Your task to perform on an android device: turn on the 24-hour format for clock Image 0: 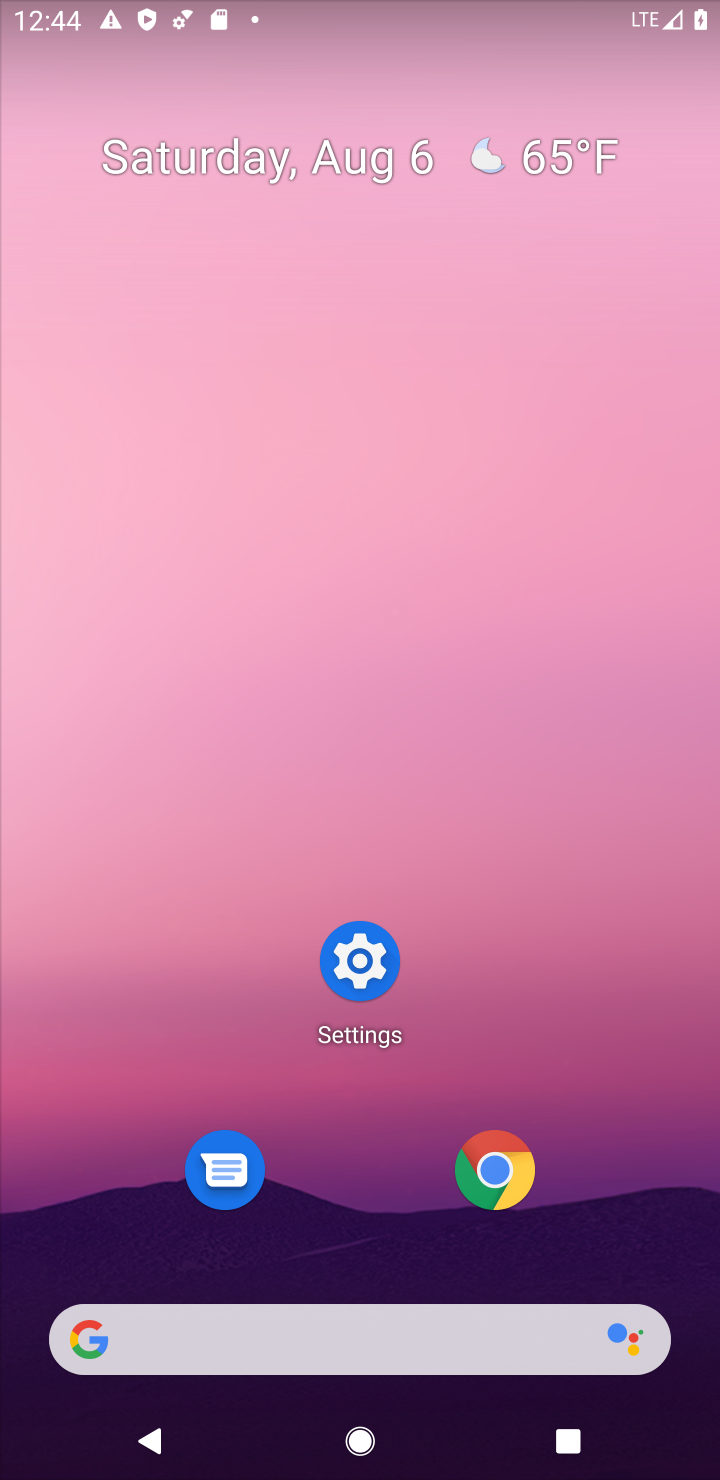
Step 0: drag from (550, 990) to (552, 535)
Your task to perform on an android device: turn on the 24-hour format for clock Image 1: 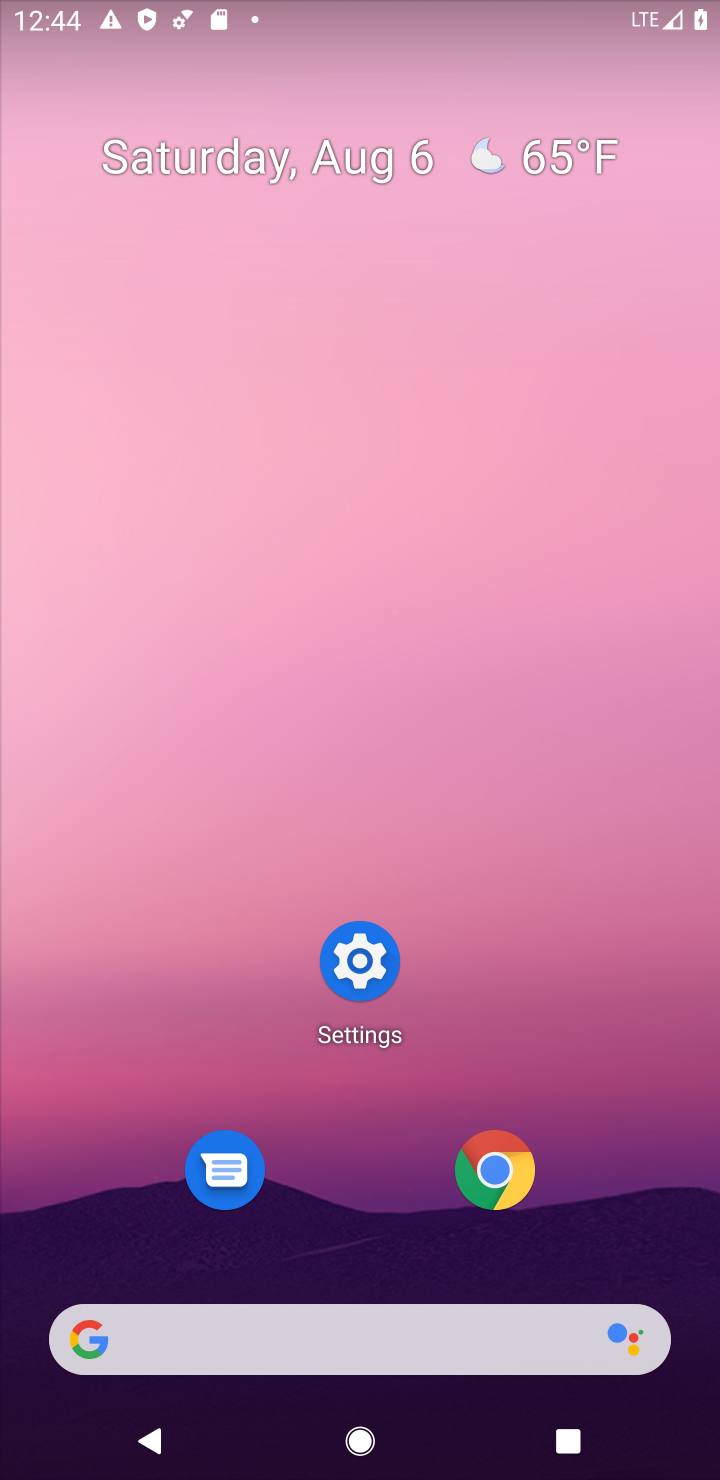
Step 1: drag from (574, 1076) to (524, 114)
Your task to perform on an android device: turn on the 24-hour format for clock Image 2: 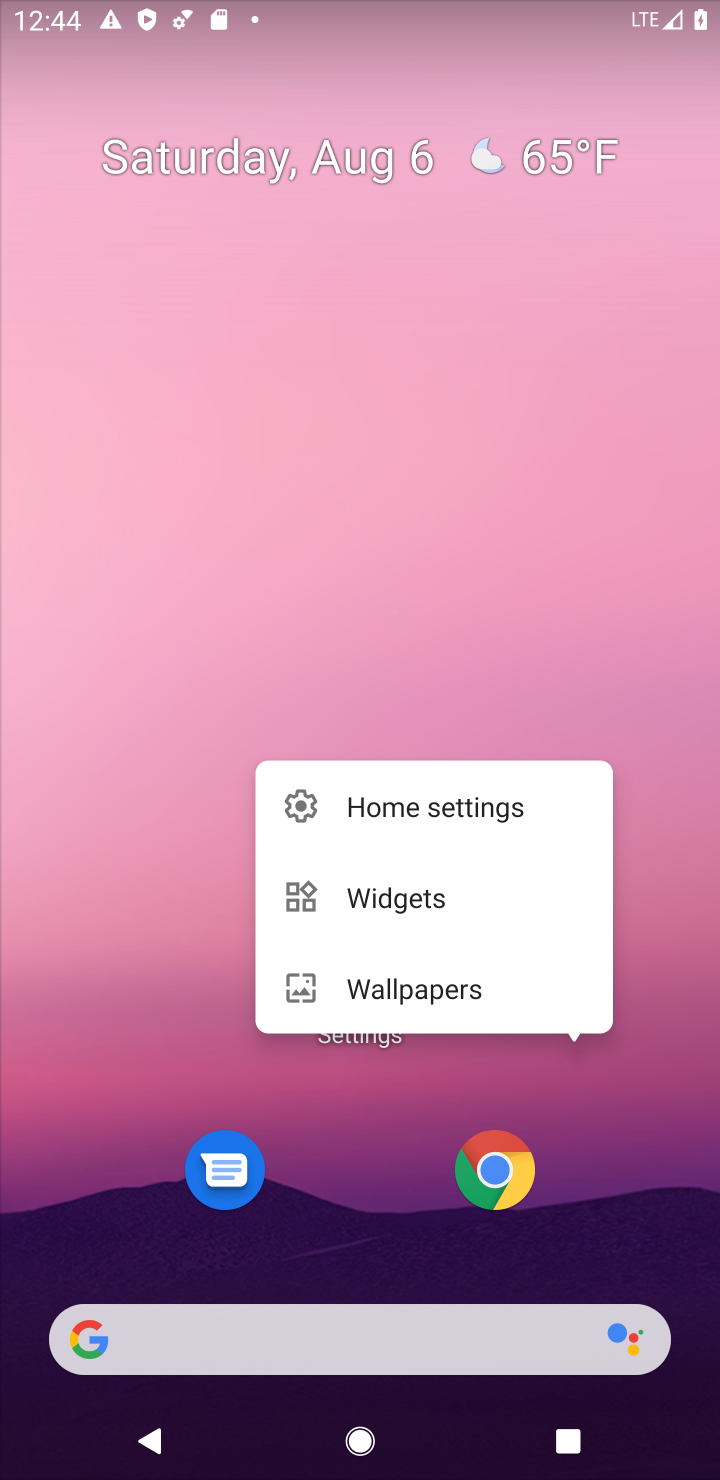
Step 2: click (103, 1207)
Your task to perform on an android device: turn on the 24-hour format for clock Image 3: 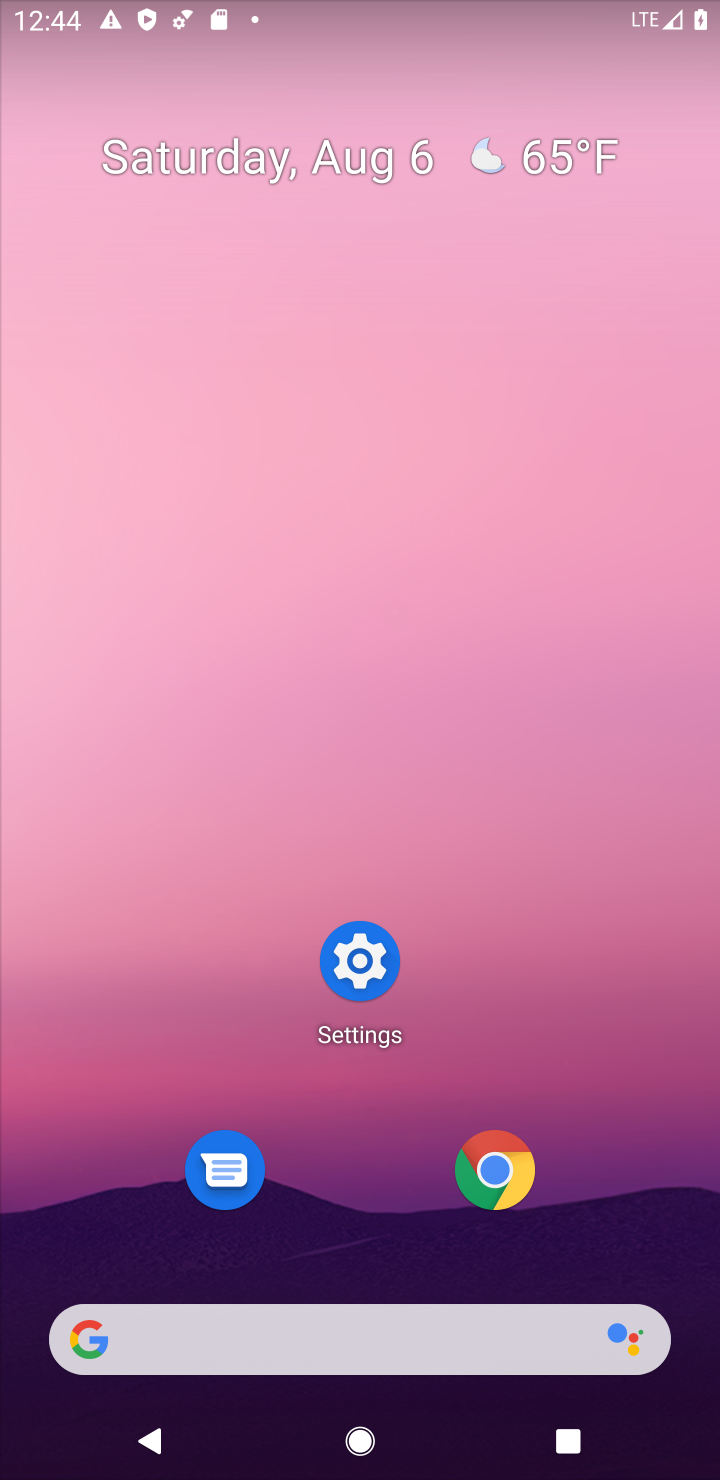
Step 3: drag from (103, 1207) to (232, 32)
Your task to perform on an android device: turn on the 24-hour format for clock Image 4: 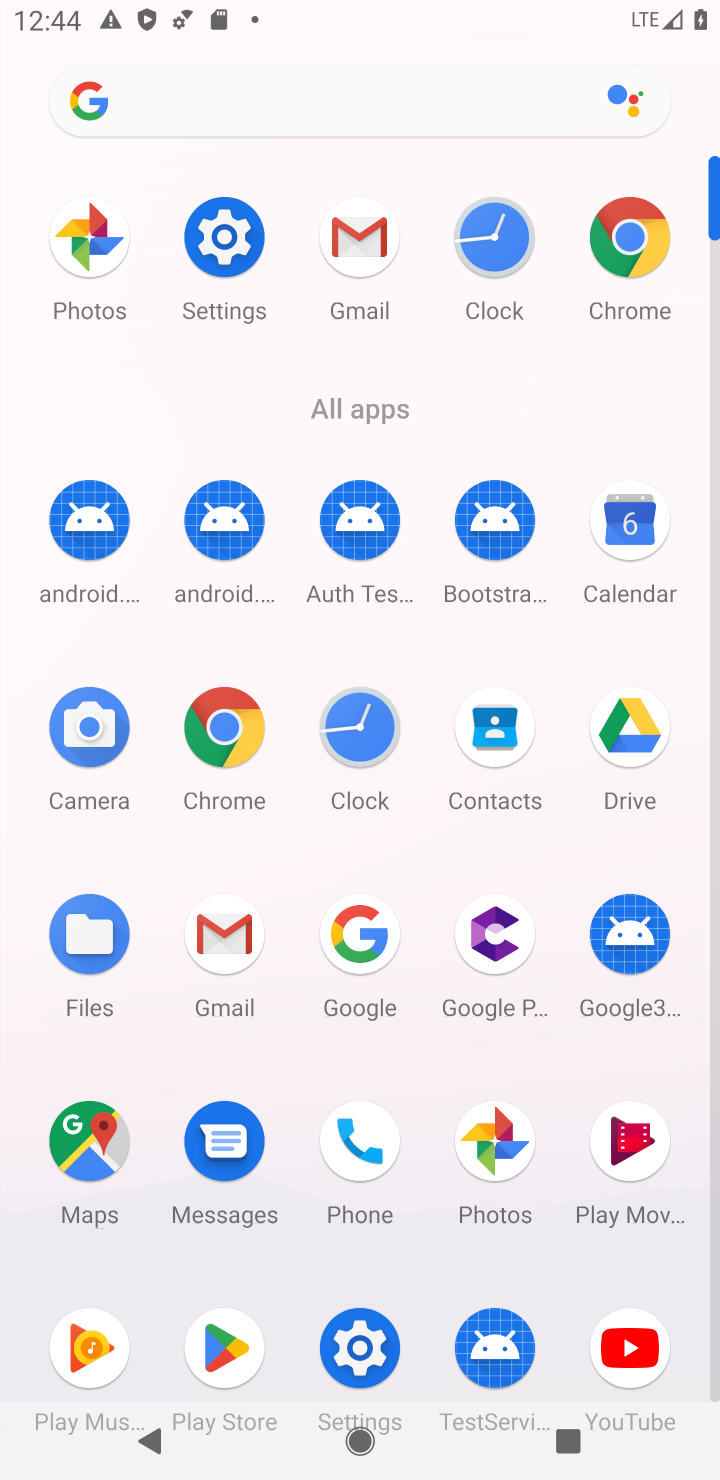
Step 4: click (496, 302)
Your task to perform on an android device: turn on the 24-hour format for clock Image 5: 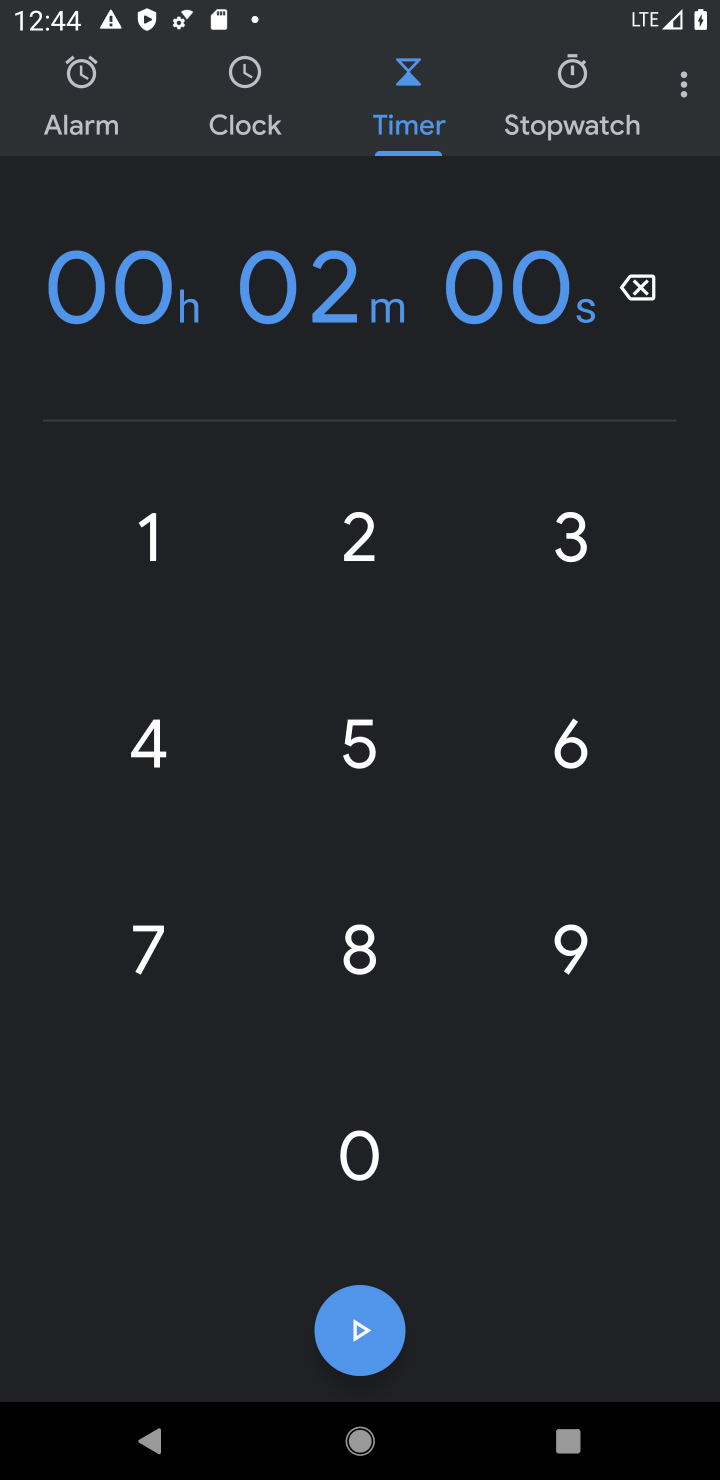
Step 5: click (686, 82)
Your task to perform on an android device: turn on the 24-hour format for clock Image 6: 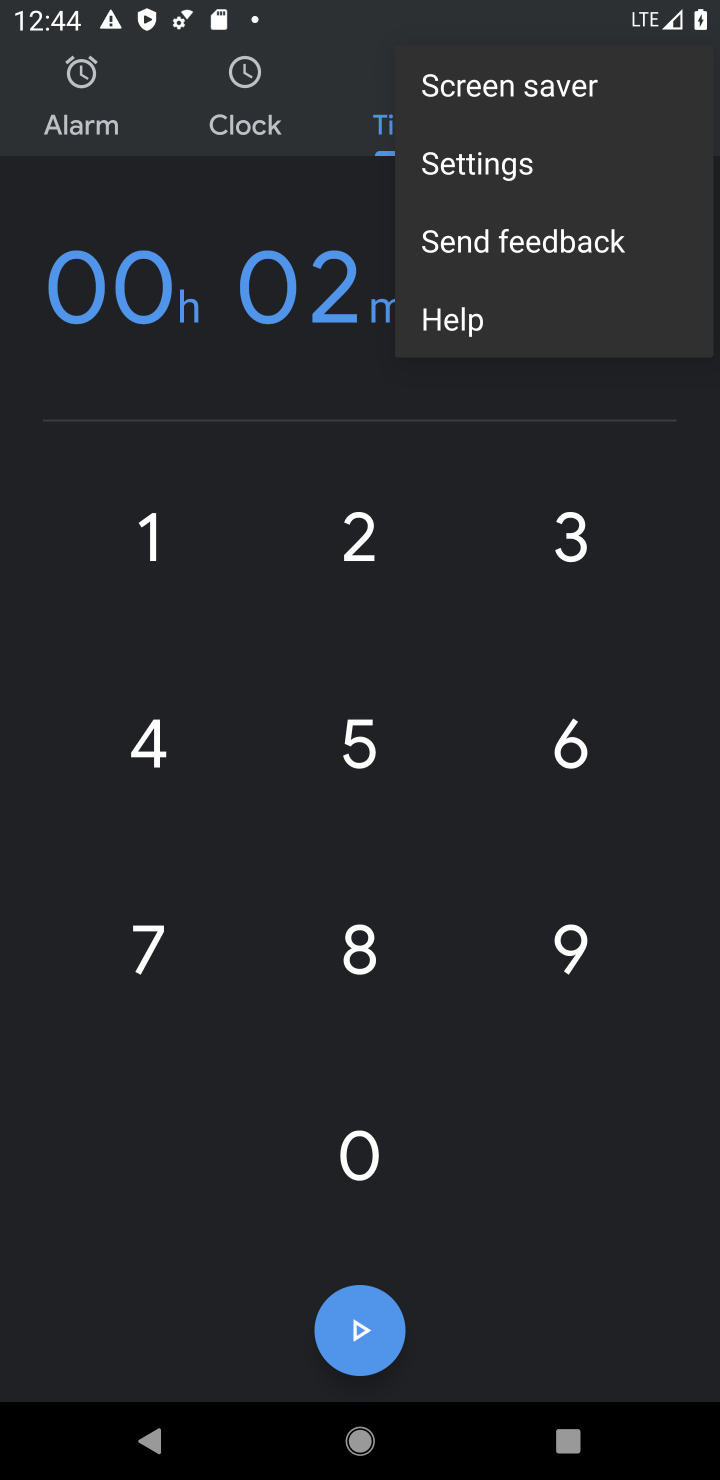
Step 6: click (539, 187)
Your task to perform on an android device: turn on the 24-hour format for clock Image 7: 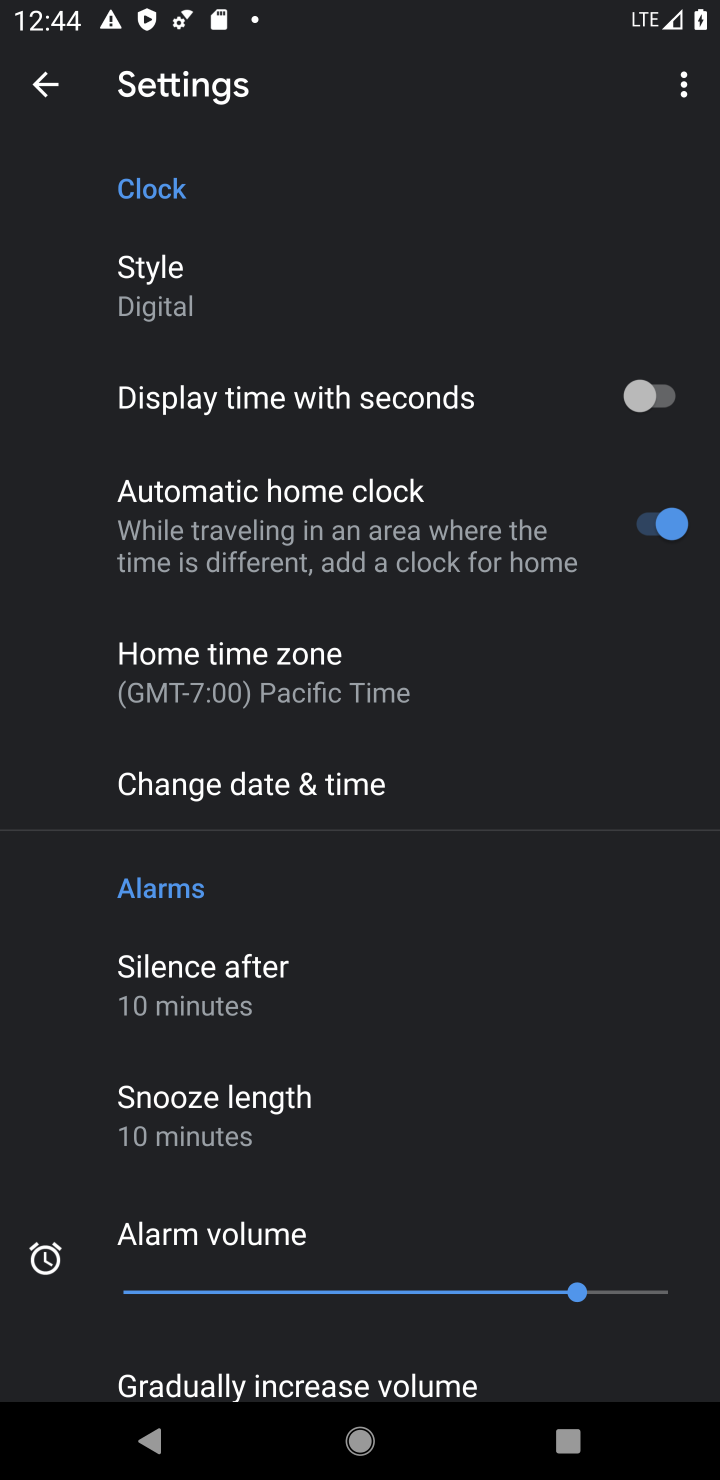
Step 7: drag from (626, 841) to (569, 168)
Your task to perform on an android device: turn on the 24-hour format for clock Image 8: 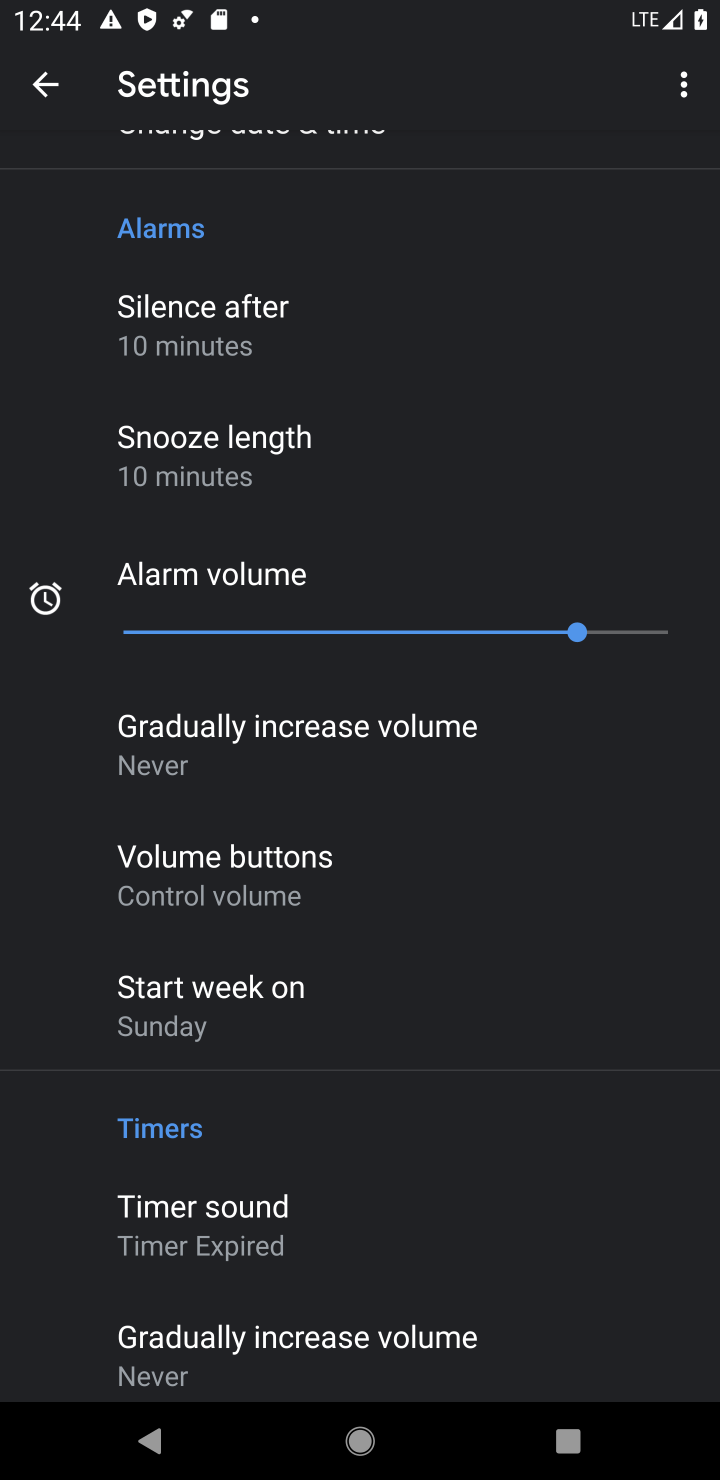
Step 8: drag from (618, 448) to (601, 1447)
Your task to perform on an android device: turn on the 24-hour format for clock Image 9: 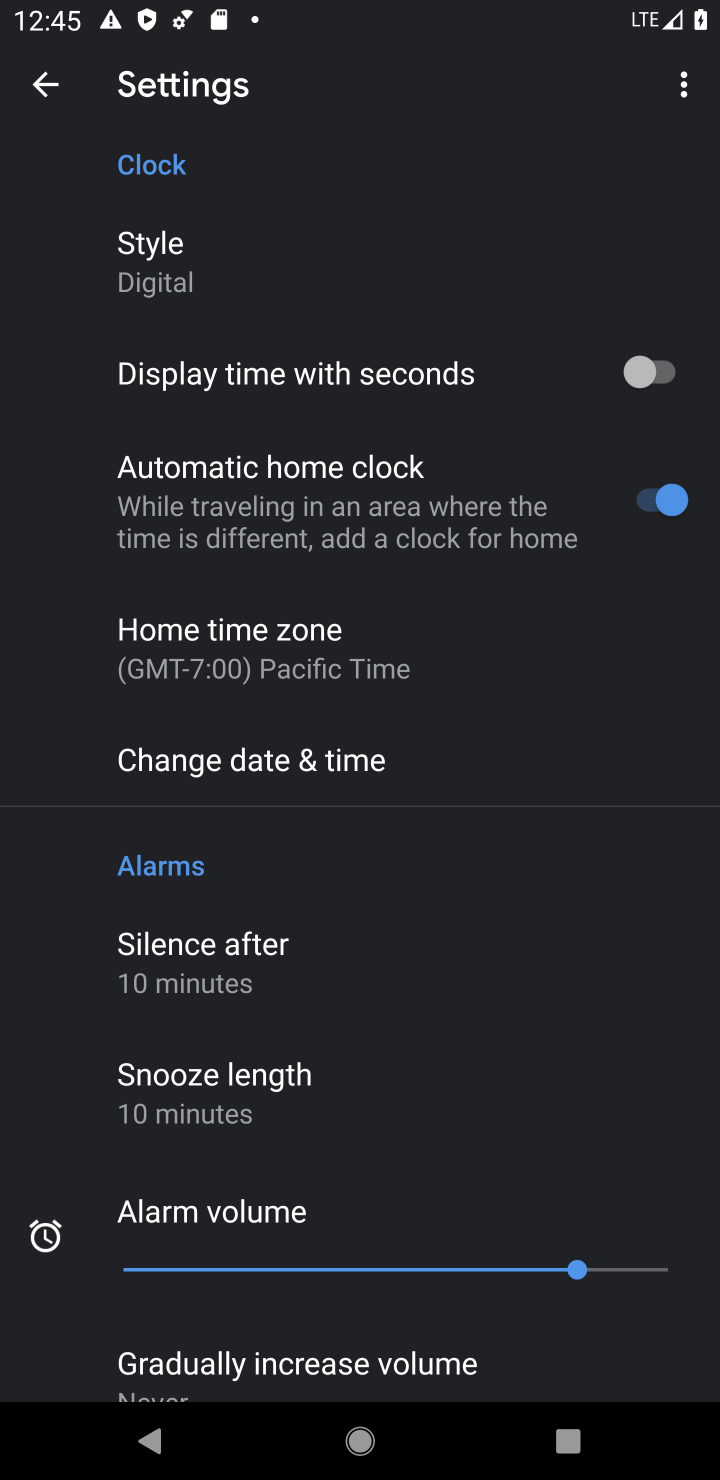
Step 9: click (320, 768)
Your task to perform on an android device: turn on the 24-hour format for clock Image 10: 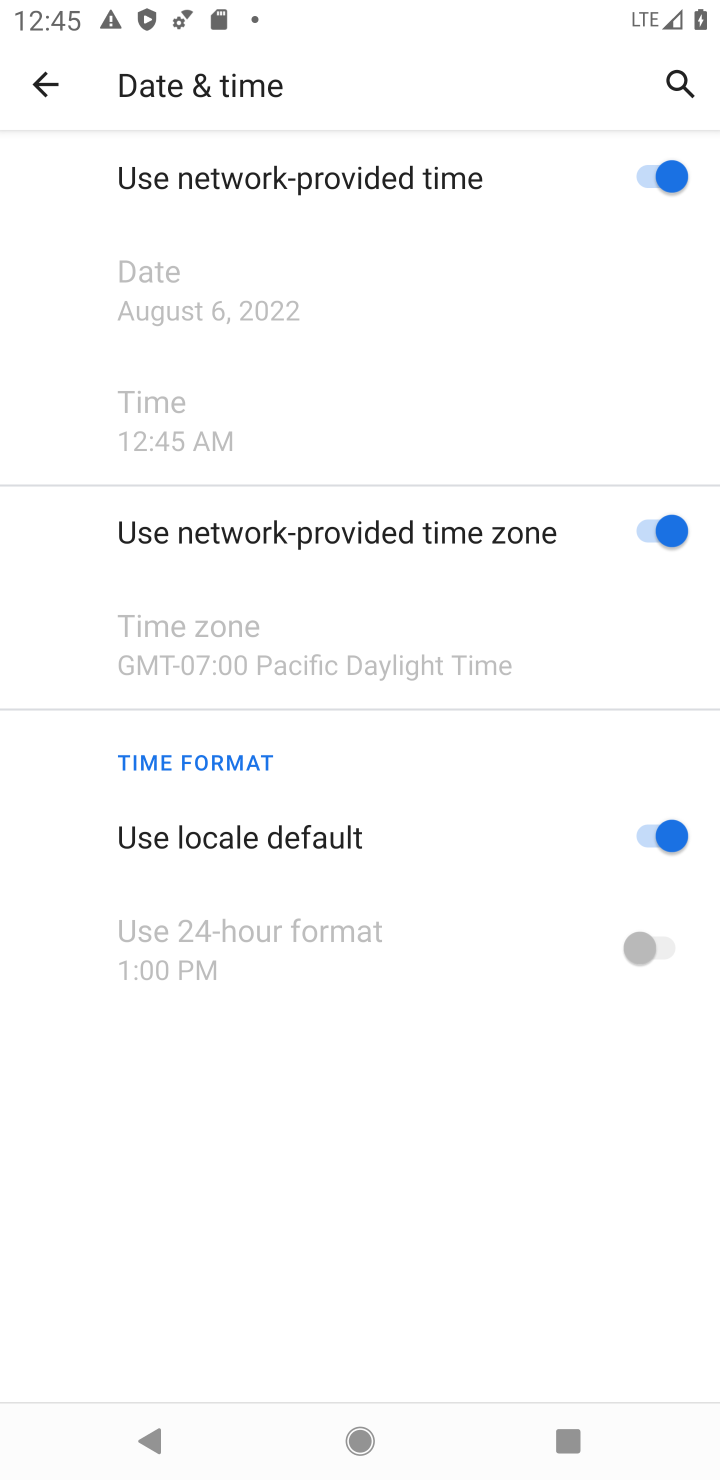
Step 10: click (50, 87)
Your task to perform on an android device: turn on the 24-hour format for clock Image 11: 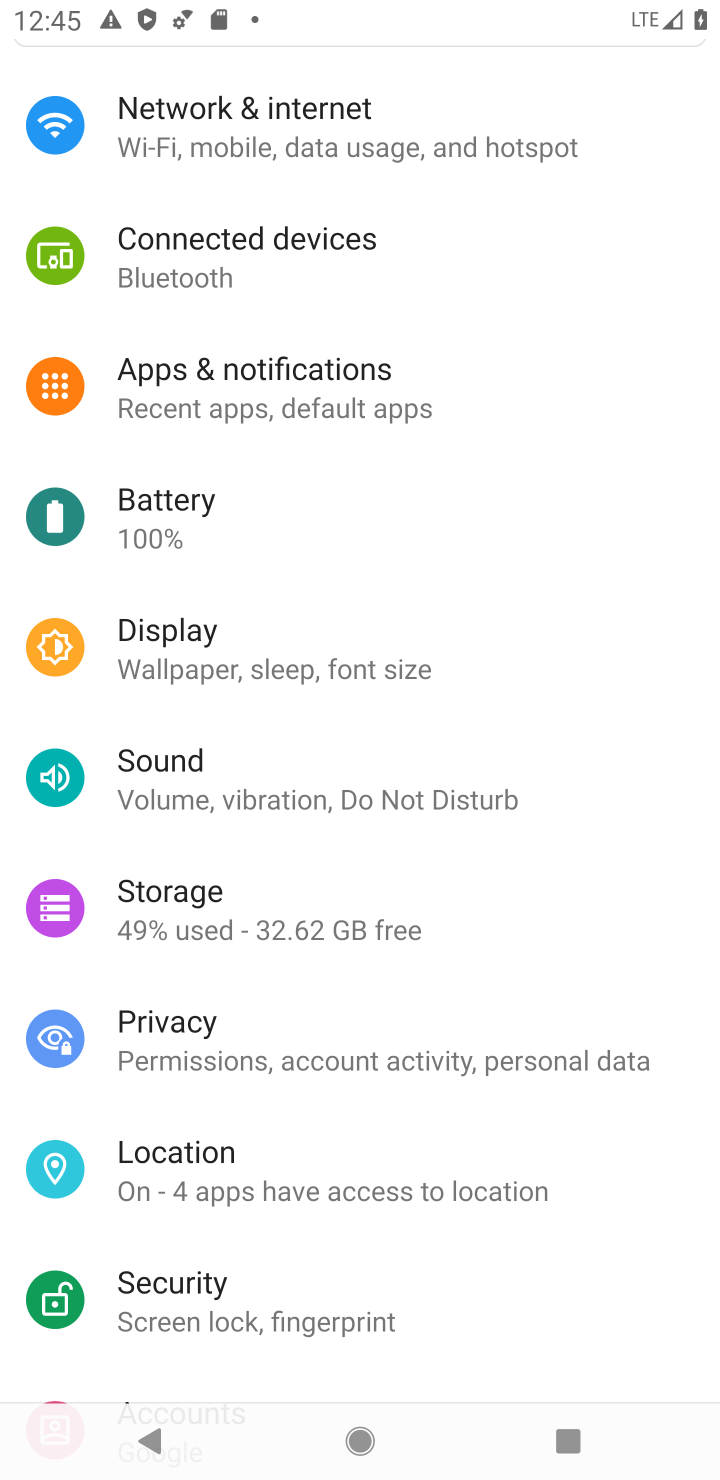
Step 11: click (331, 1461)
Your task to perform on an android device: turn on the 24-hour format for clock Image 12: 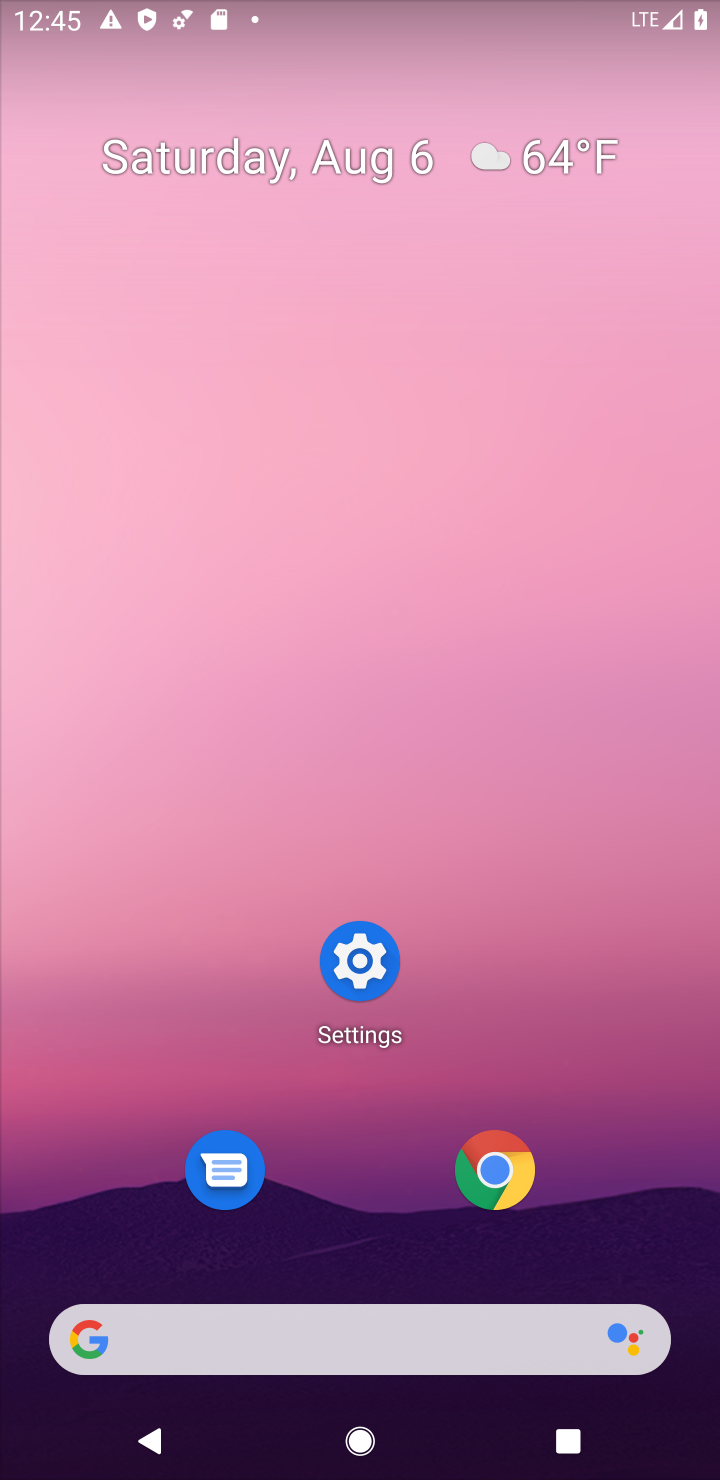
Step 12: drag from (361, 1194) to (510, 40)
Your task to perform on an android device: turn on the 24-hour format for clock Image 13: 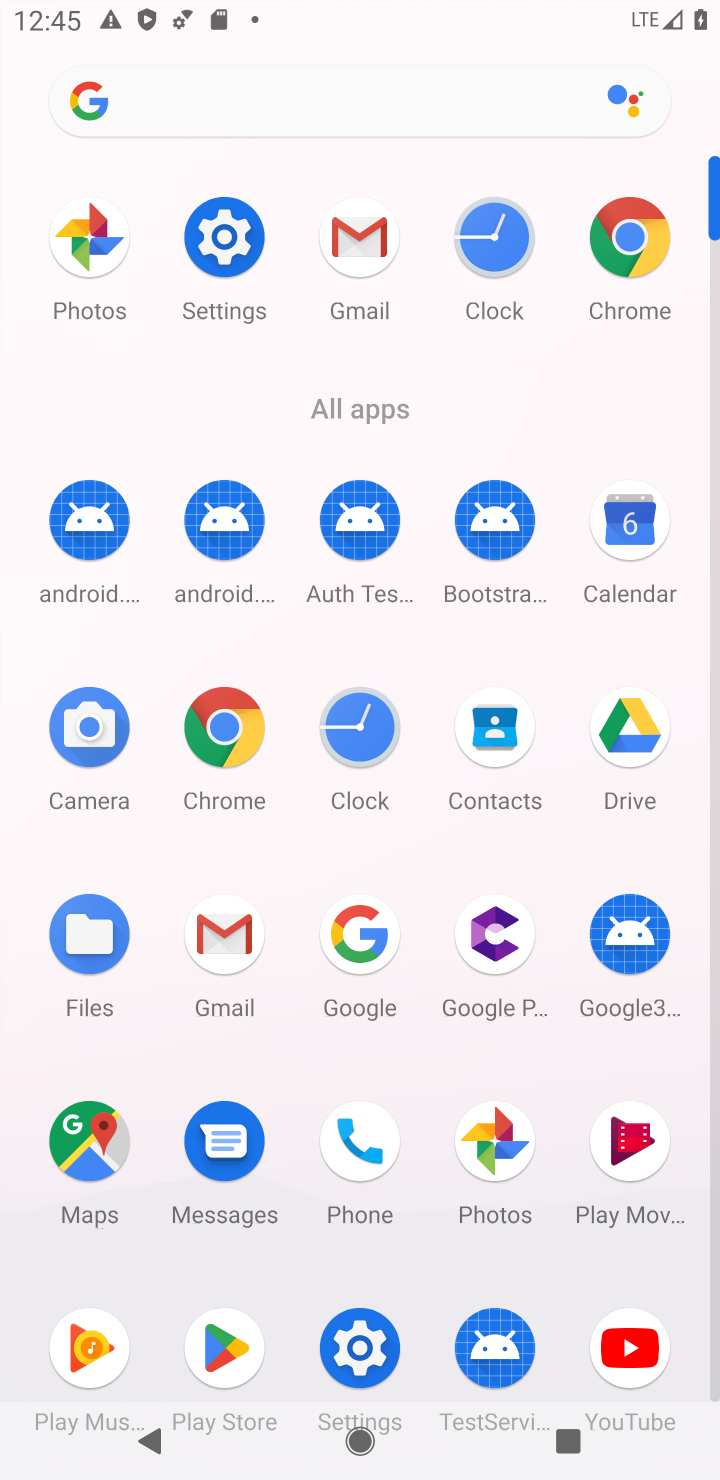
Step 13: click (502, 241)
Your task to perform on an android device: turn on the 24-hour format for clock Image 14: 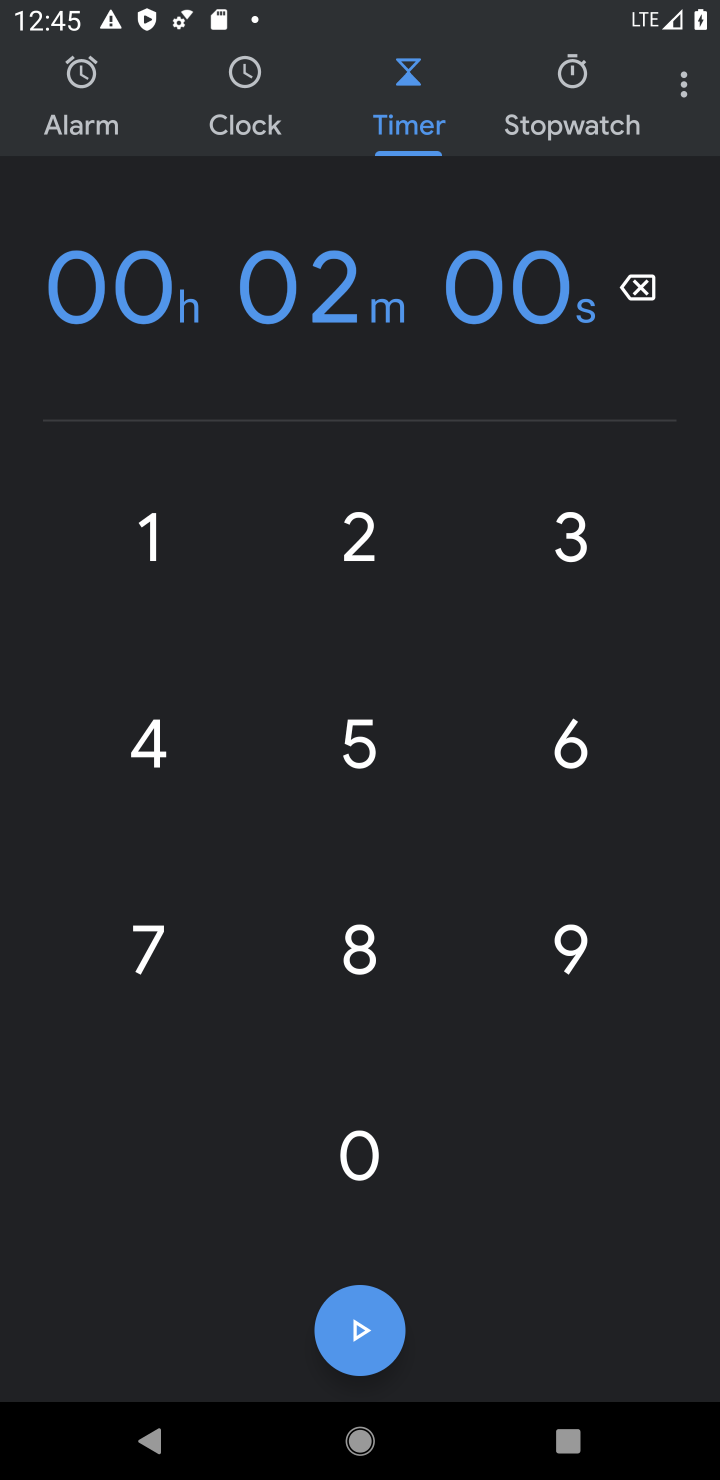
Step 14: click (679, 81)
Your task to perform on an android device: turn on the 24-hour format for clock Image 15: 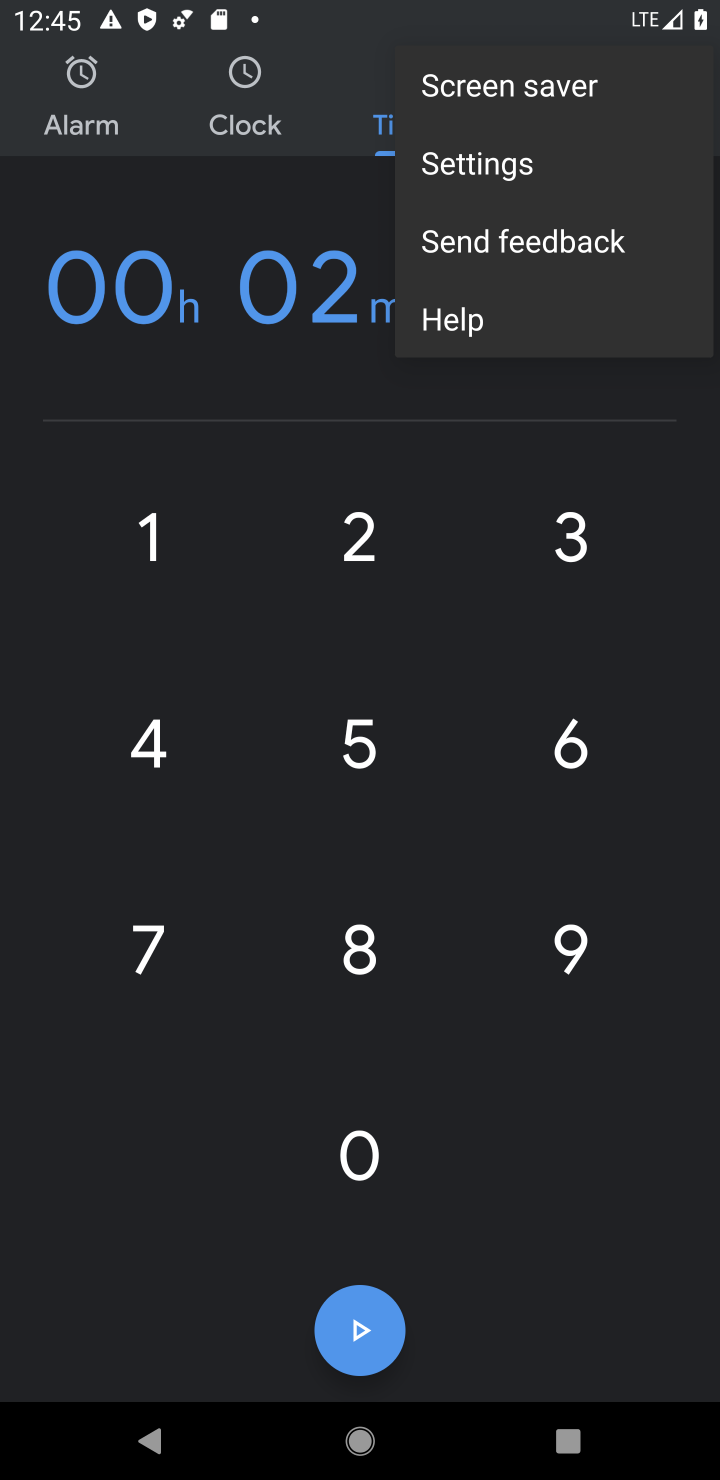
Step 15: click (575, 146)
Your task to perform on an android device: turn on the 24-hour format for clock Image 16: 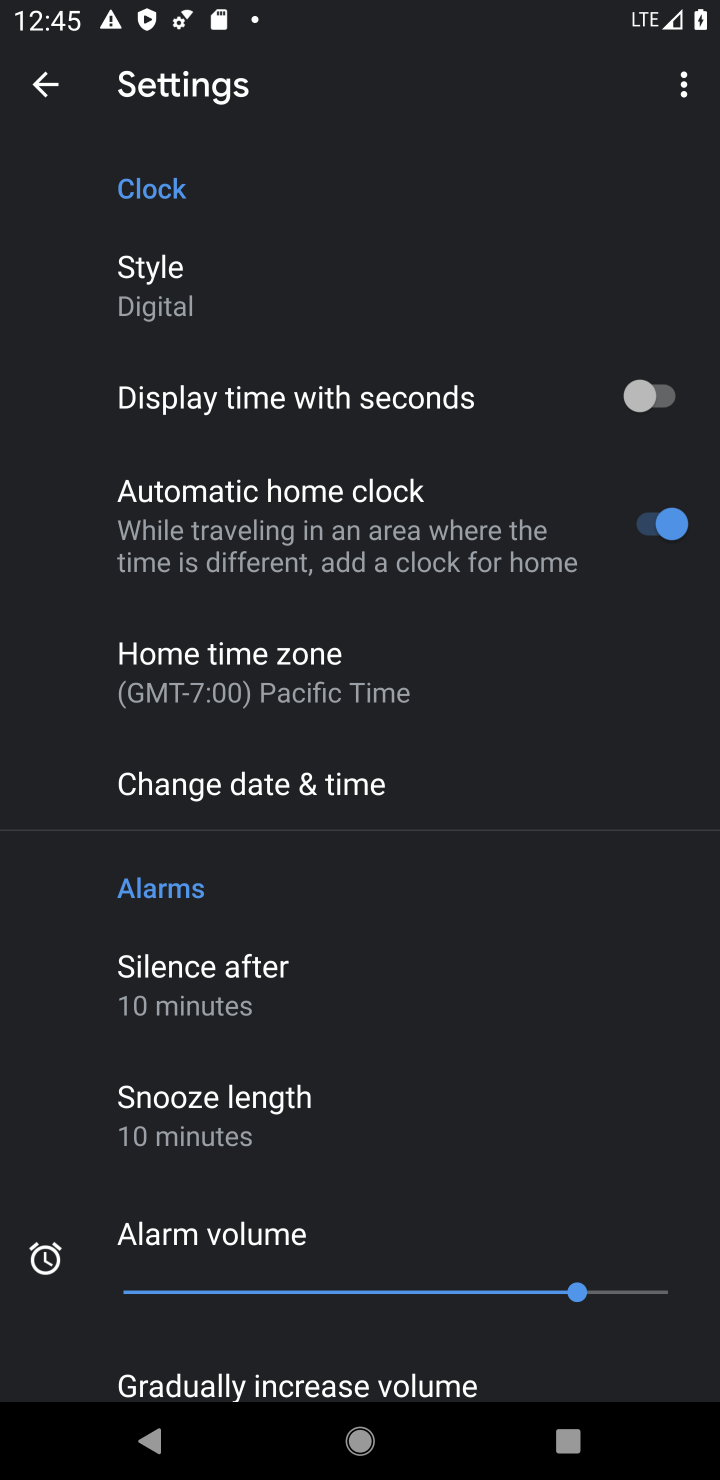
Step 16: click (351, 681)
Your task to perform on an android device: turn on the 24-hour format for clock Image 17: 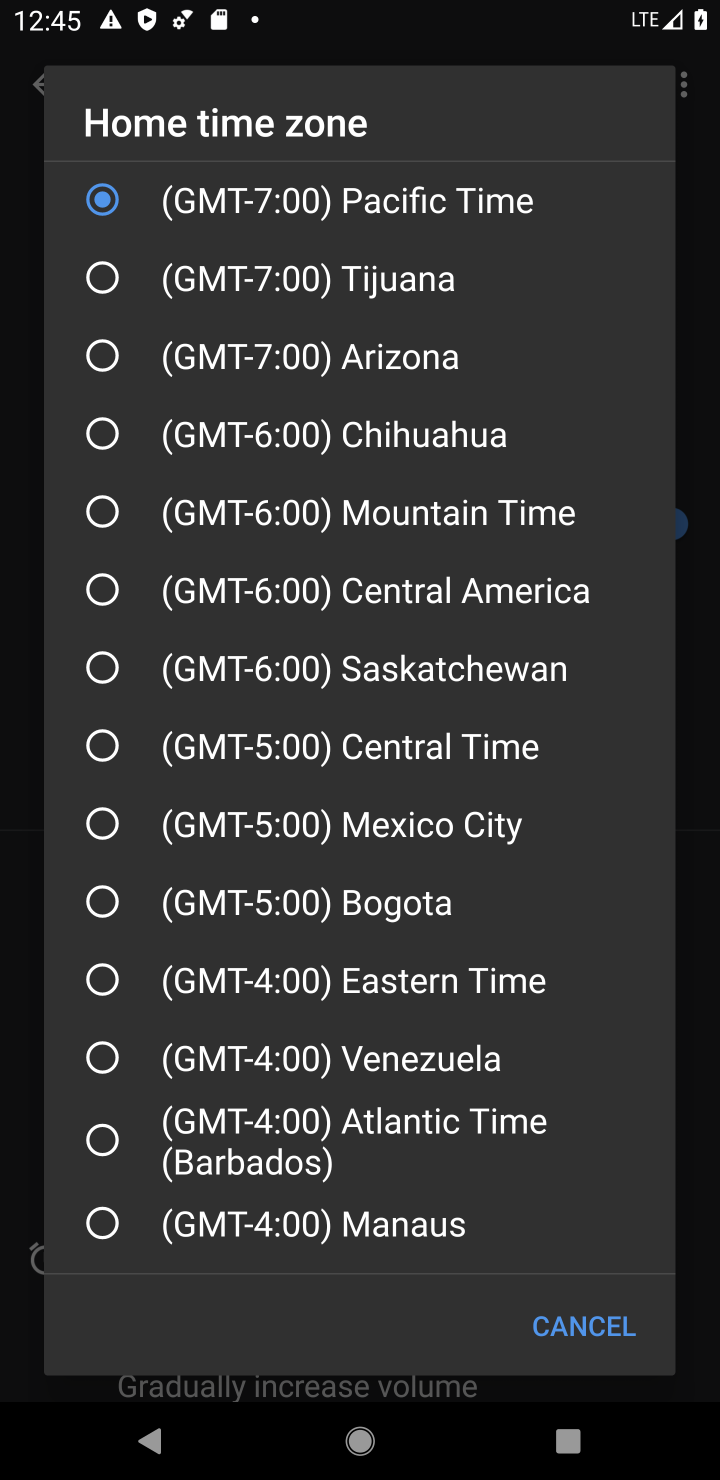
Step 17: click (588, 1327)
Your task to perform on an android device: turn on the 24-hour format for clock Image 18: 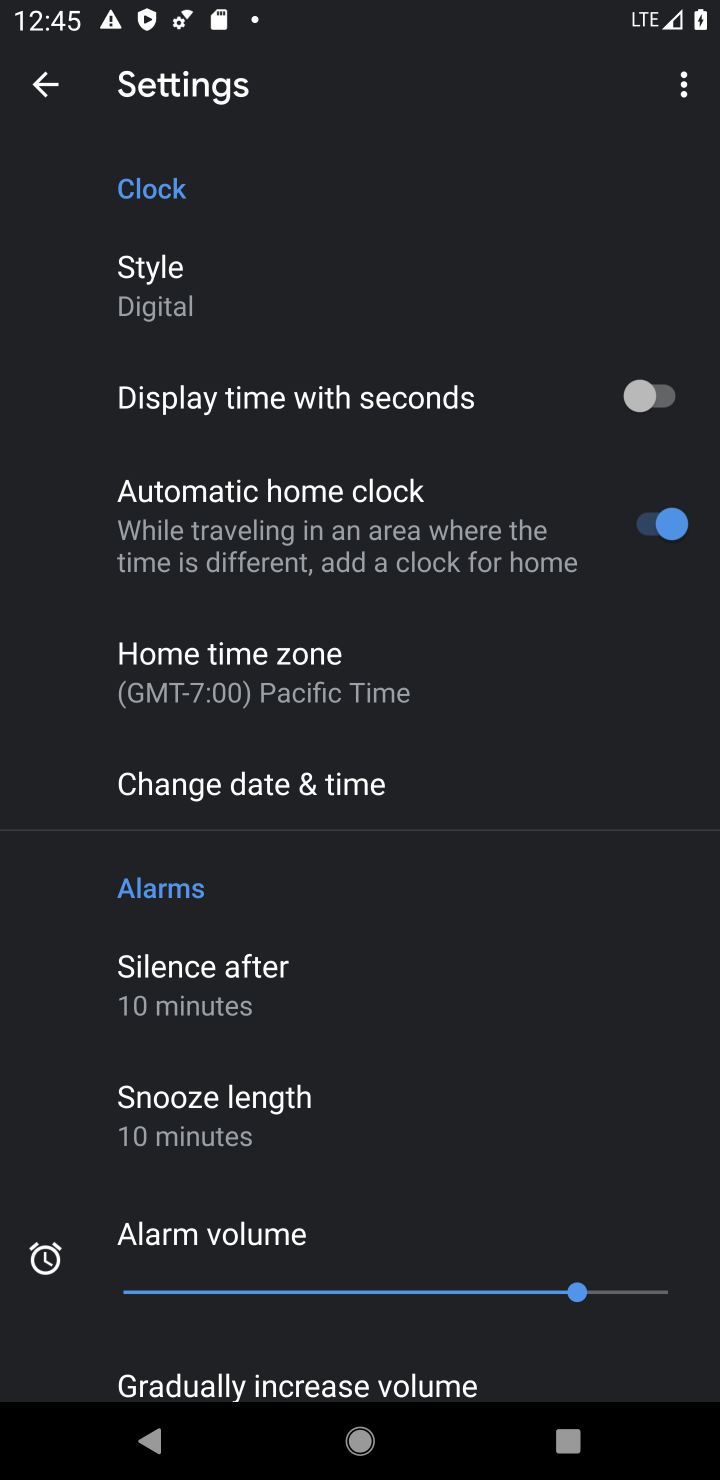
Step 18: drag from (24, 754) to (216, 7)
Your task to perform on an android device: turn on the 24-hour format for clock Image 19: 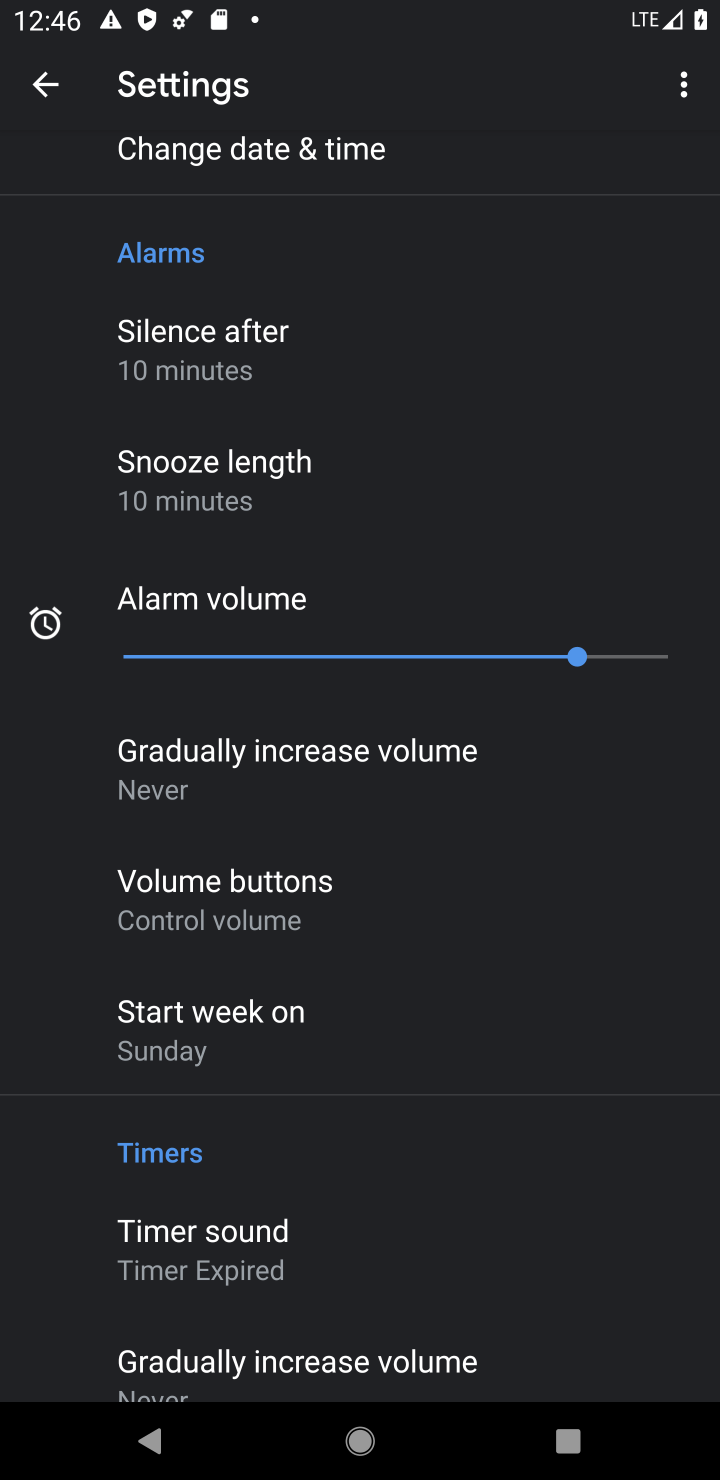
Step 19: drag from (56, 1262) to (310, 32)
Your task to perform on an android device: turn on the 24-hour format for clock Image 20: 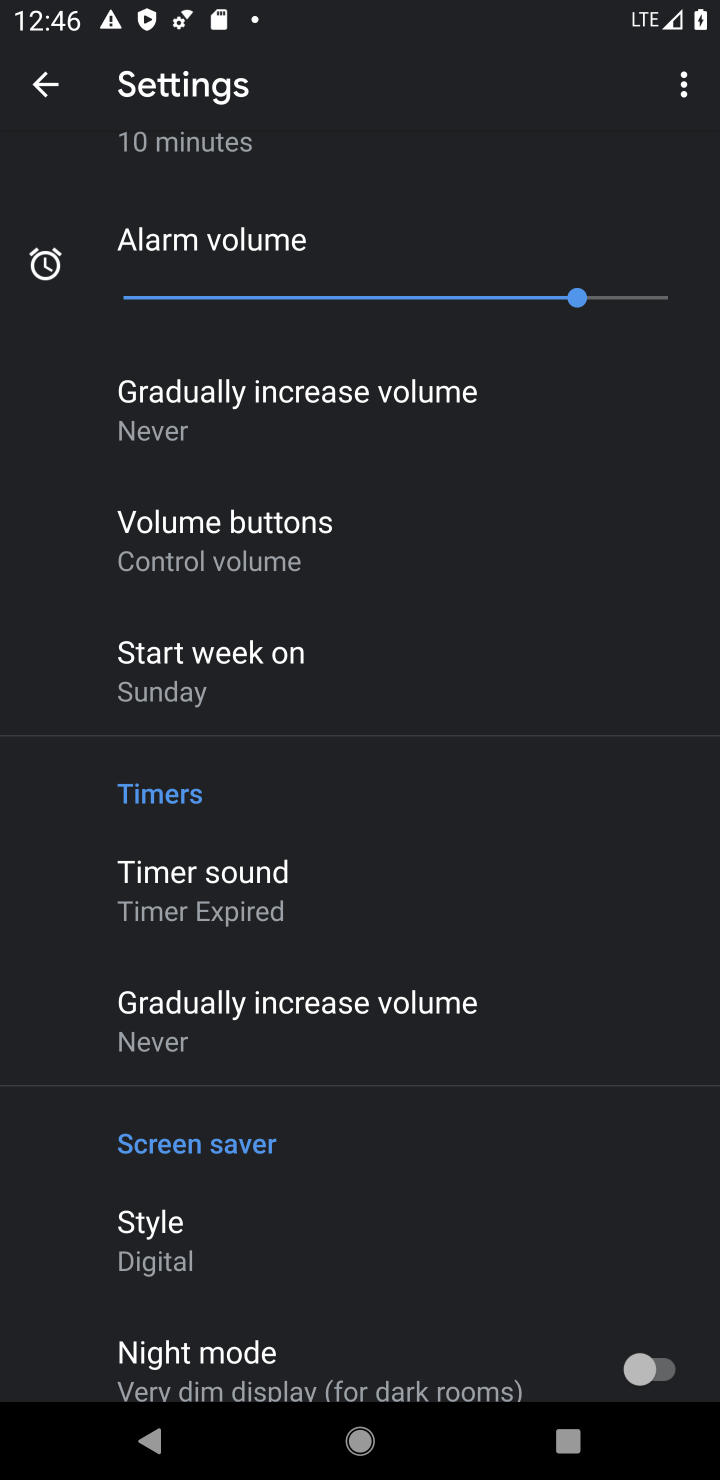
Step 20: click (357, 1442)
Your task to perform on an android device: turn on the 24-hour format for clock Image 21: 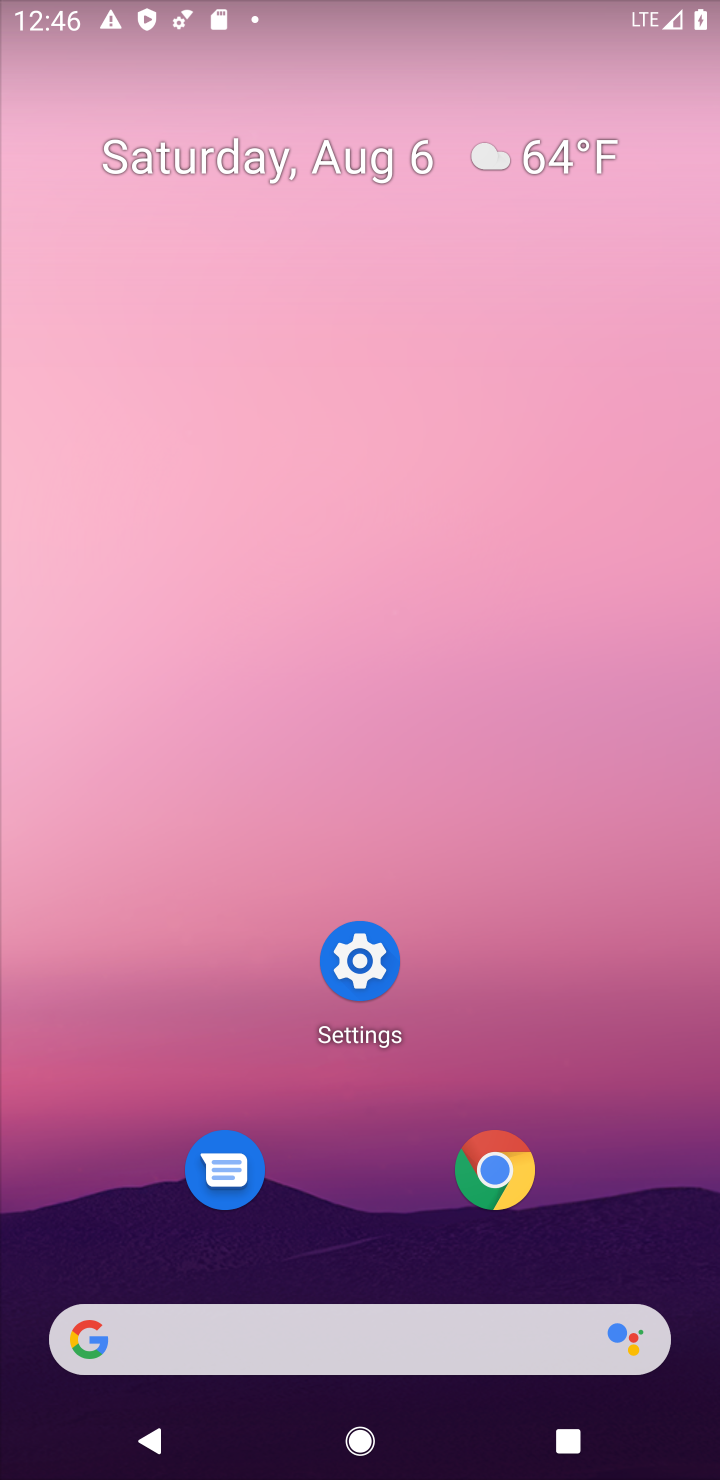
Step 21: click (348, 963)
Your task to perform on an android device: turn on the 24-hour format for clock Image 22: 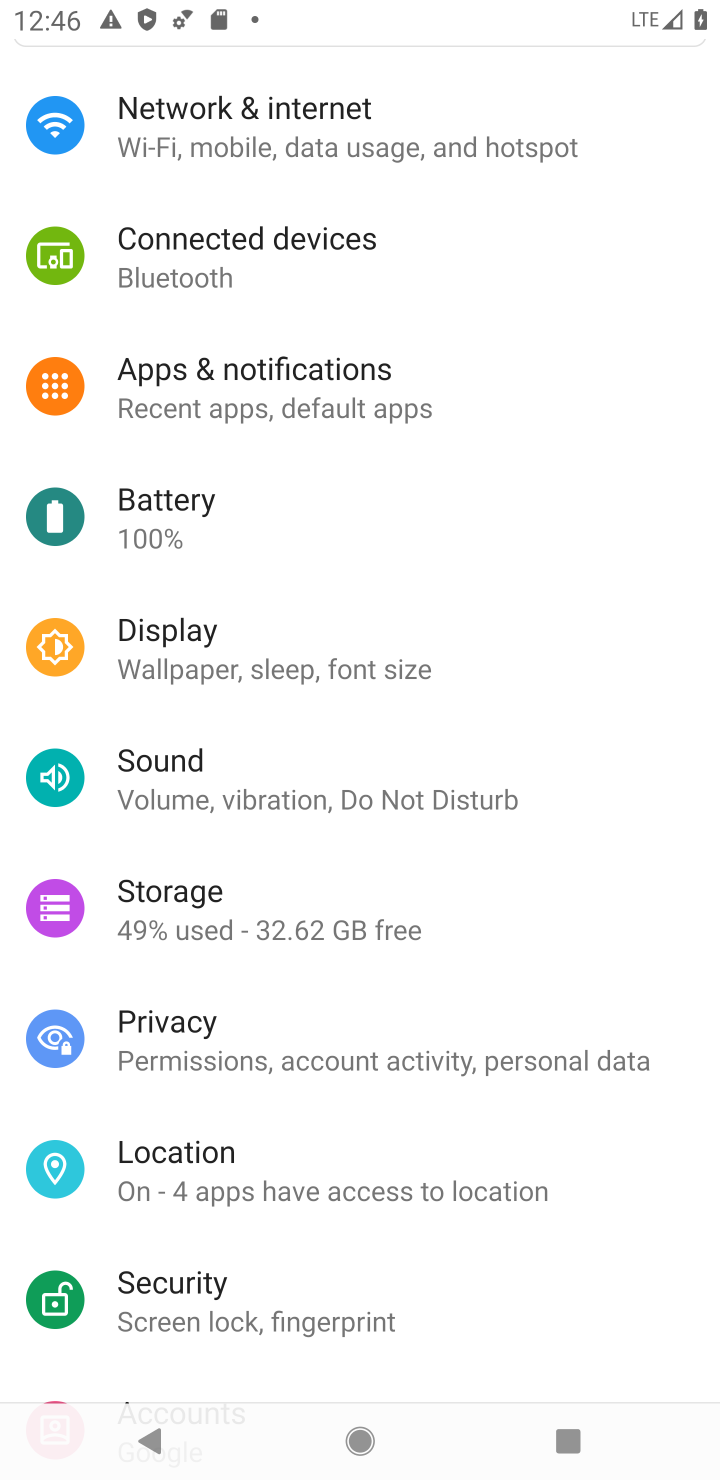
Step 22: drag from (602, 802) to (554, 28)
Your task to perform on an android device: turn on the 24-hour format for clock Image 23: 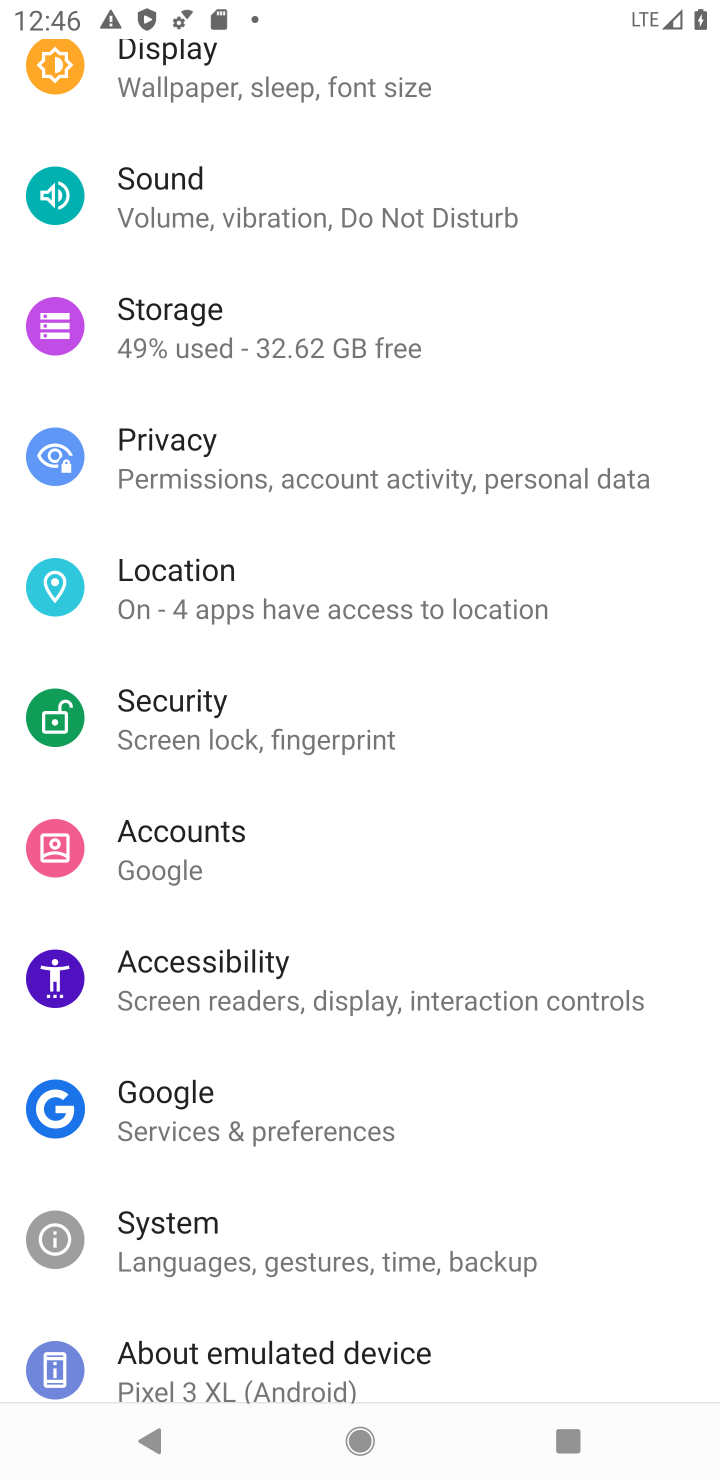
Step 23: click (555, 15)
Your task to perform on an android device: turn on the 24-hour format for clock Image 24: 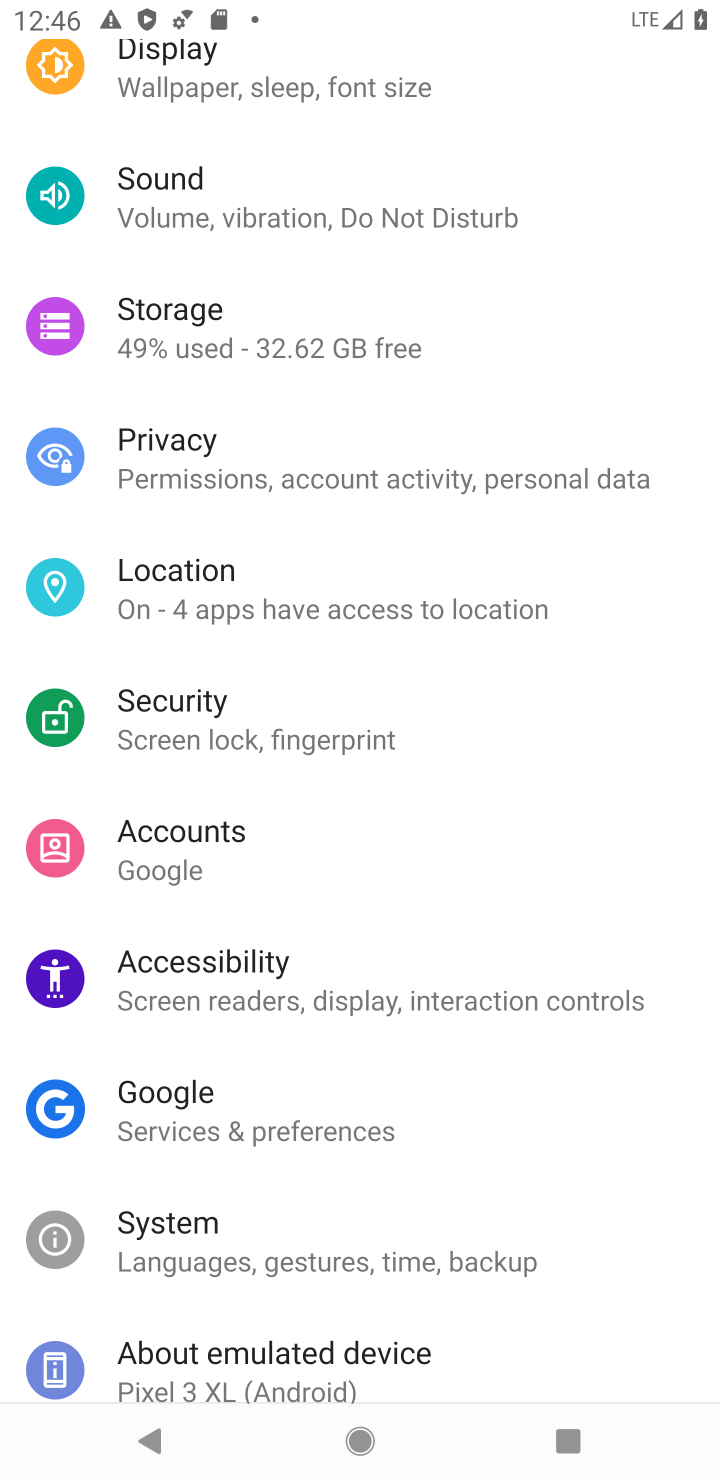
Step 24: click (366, 1272)
Your task to perform on an android device: turn on the 24-hour format for clock Image 25: 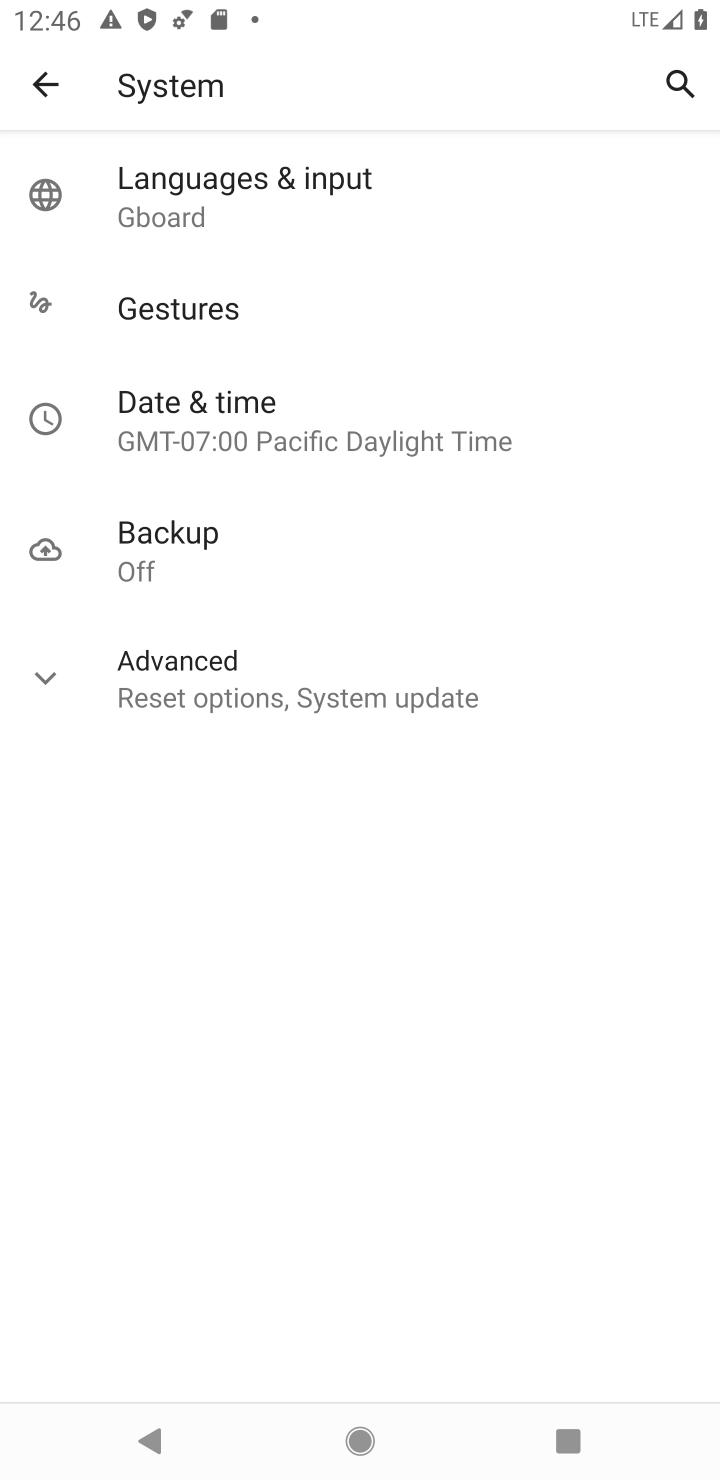
Step 25: click (181, 427)
Your task to perform on an android device: turn on the 24-hour format for clock Image 26: 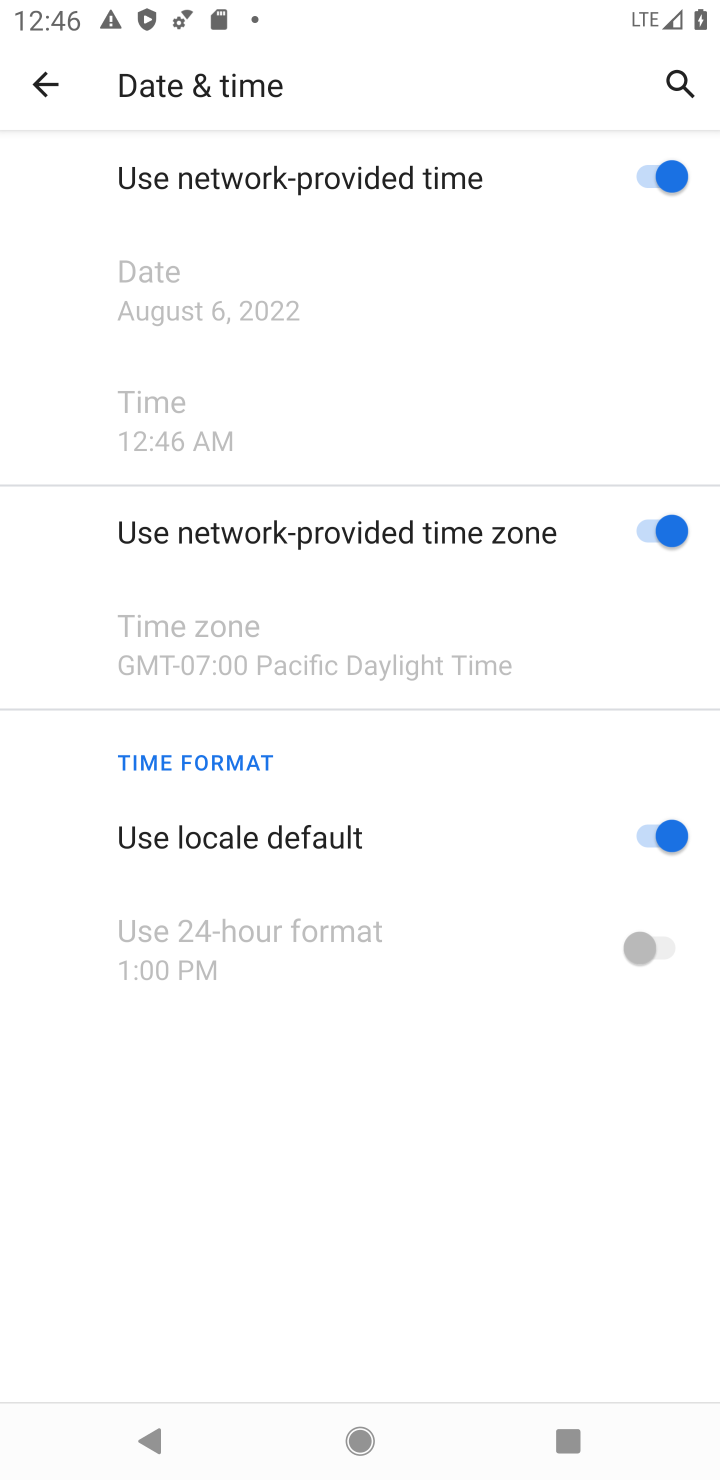
Step 26: click (640, 947)
Your task to perform on an android device: turn on the 24-hour format for clock Image 27: 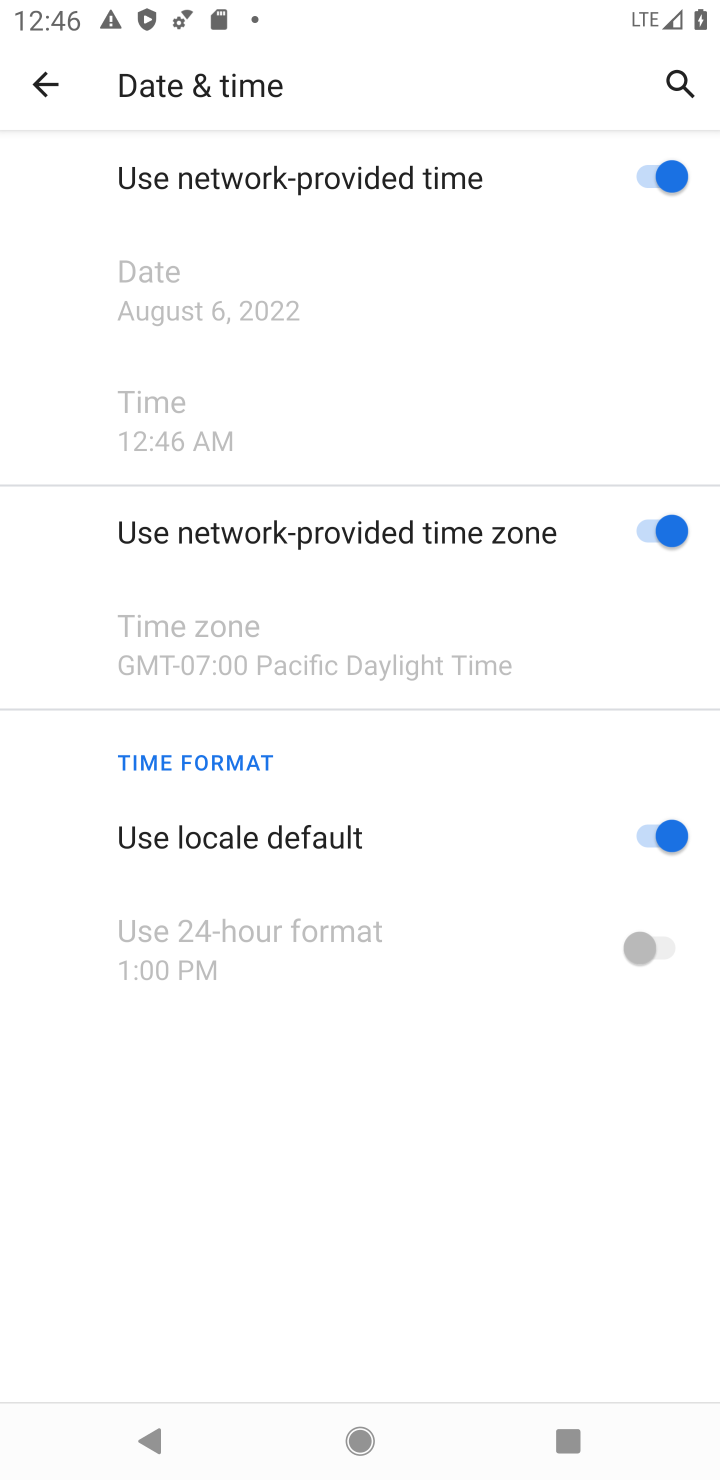
Step 27: click (636, 951)
Your task to perform on an android device: turn on the 24-hour format for clock Image 28: 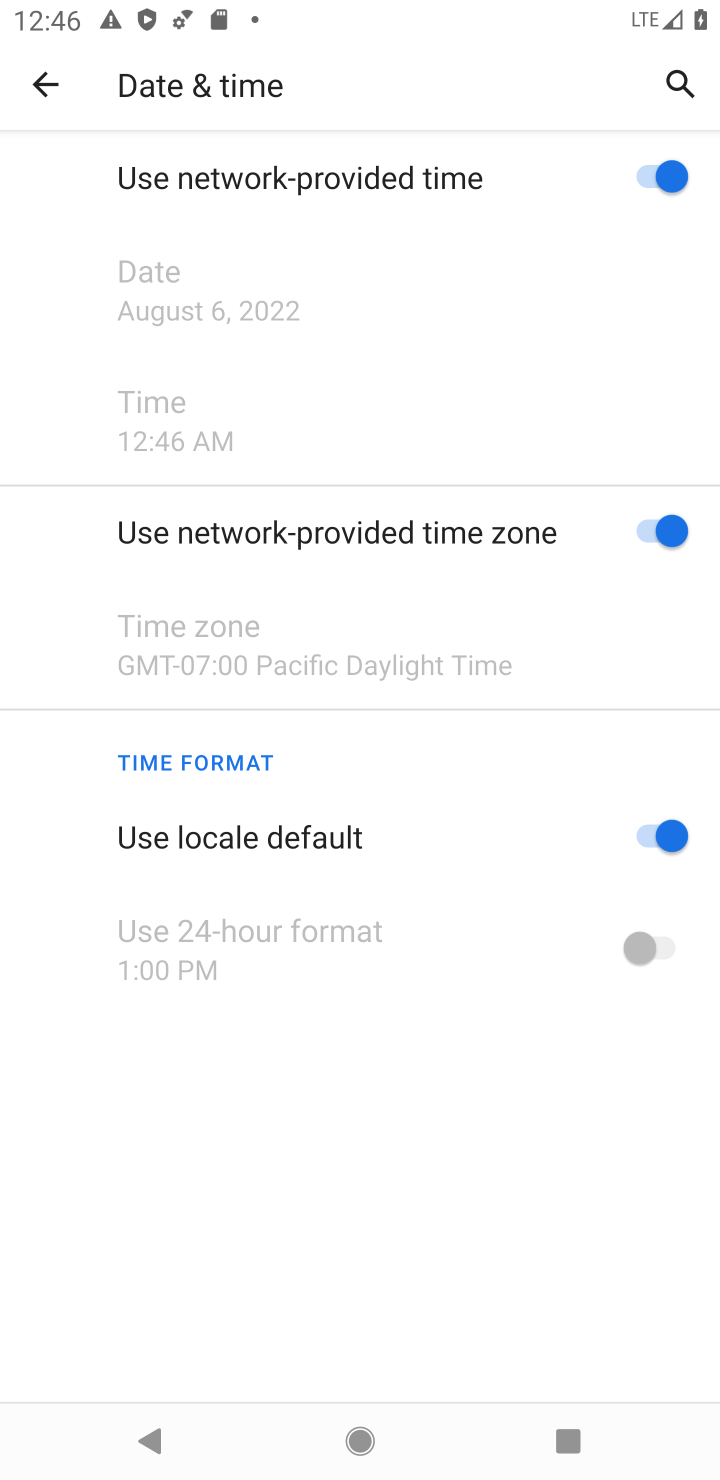
Step 28: click (668, 837)
Your task to perform on an android device: turn on the 24-hour format for clock Image 29: 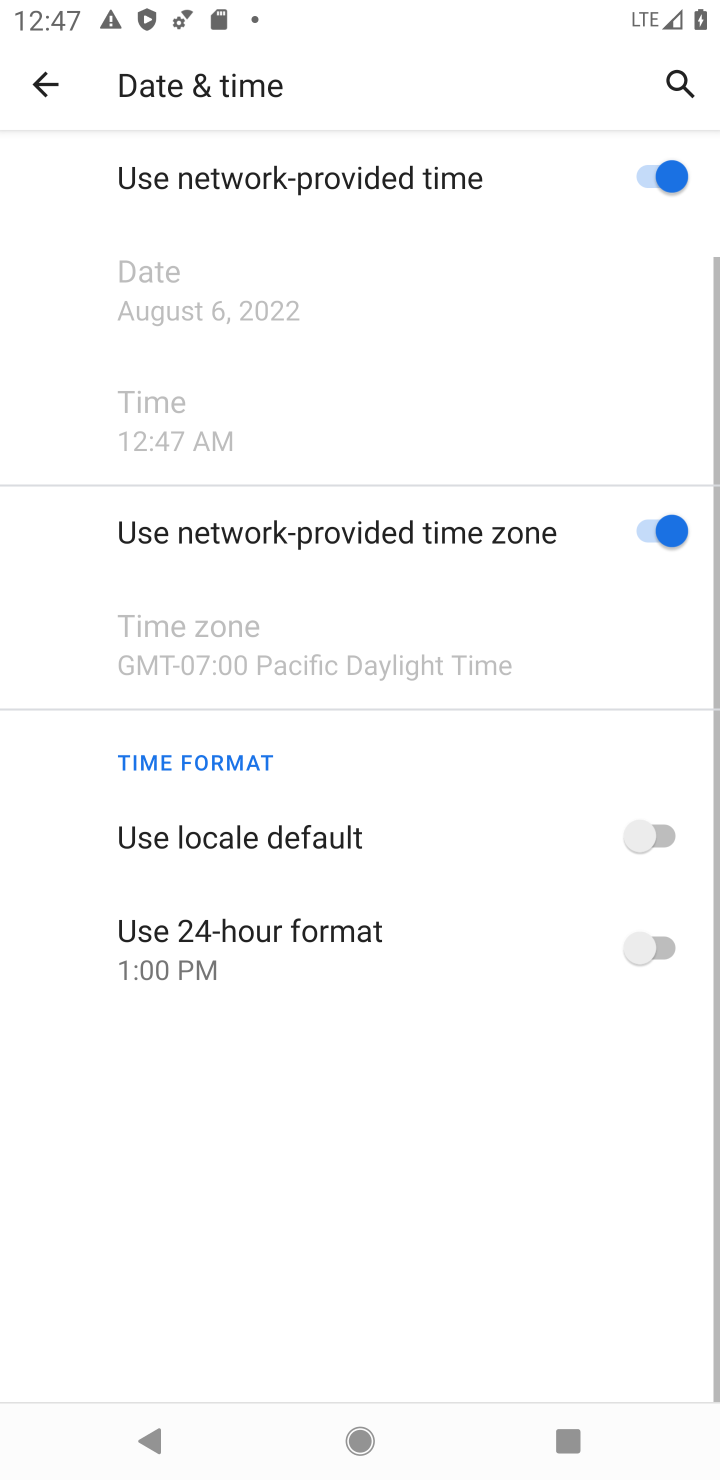
Step 29: click (646, 961)
Your task to perform on an android device: turn on the 24-hour format for clock Image 30: 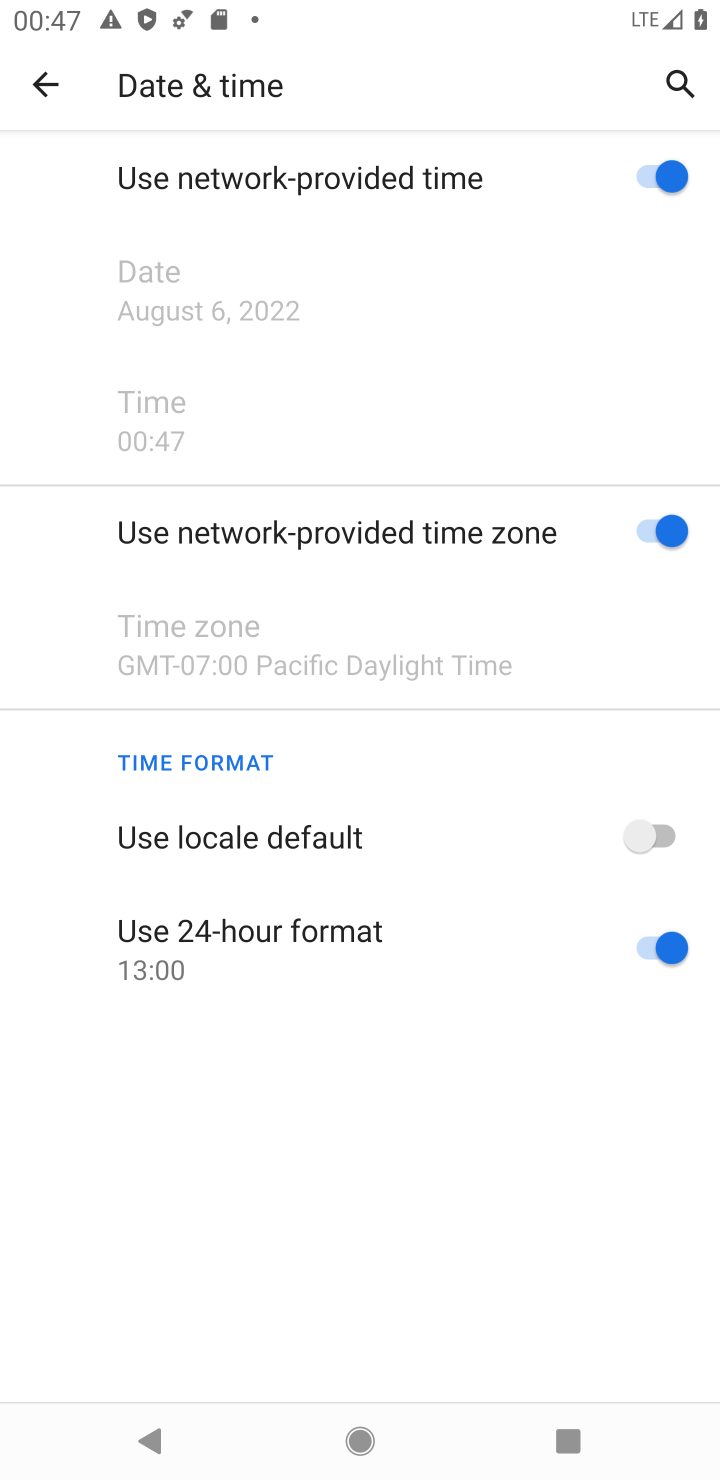
Step 30: task complete